Your task to perform on an android device: open app "Google Sheets" (install if not already installed) Image 0: 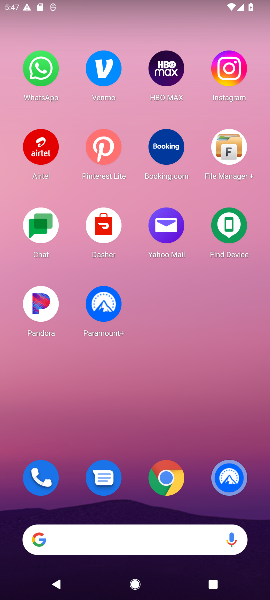
Step 0: drag from (124, 403) to (185, 0)
Your task to perform on an android device: open app "Google Sheets" (install if not already installed) Image 1: 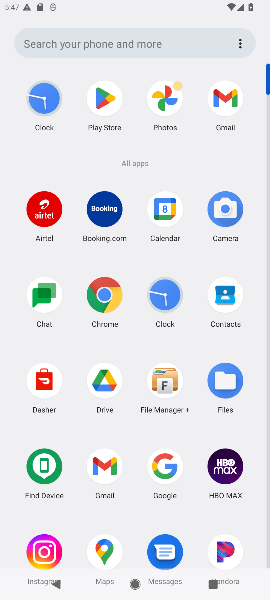
Step 1: click (97, 99)
Your task to perform on an android device: open app "Google Sheets" (install if not already installed) Image 2: 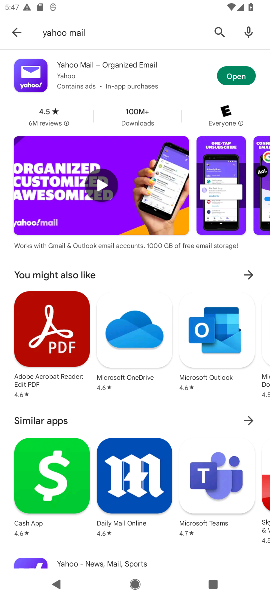
Step 2: click (183, 30)
Your task to perform on an android device: open app "Google Sheets" (install if not already installed) Image 3: 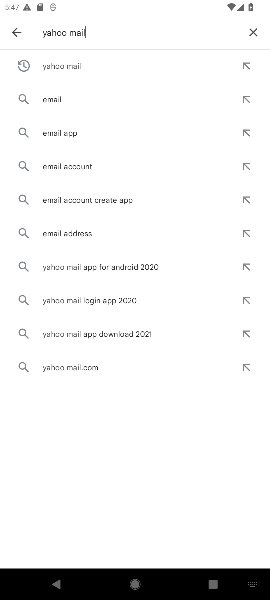
Step 3: click (252, 27)
Your task to perform on an android device: open app "Google Sheets" (install if not already installed) Image 4: 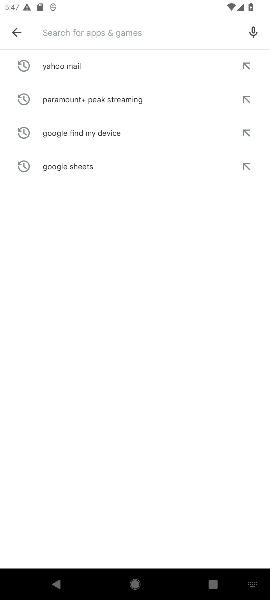
Step 4: type "google streets"
Your task to perform on an android device: open app "Google Sheets" (install if not already installed) Image 5: 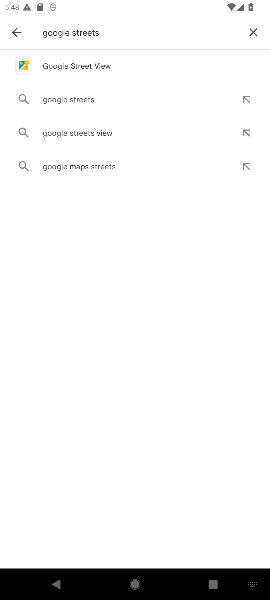
Step 5: click (107, 71)
Your task to perform on an android device: open app "Google Sheets" (install if not already installed) Image 6: 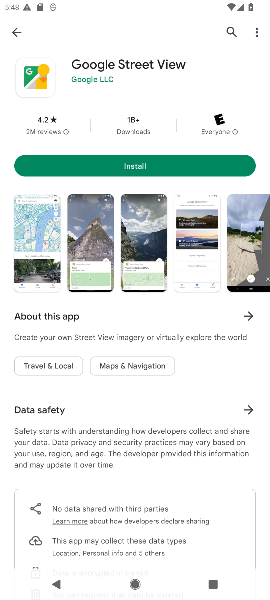
Step 6: click (108, 71)
Your task to perform on an android device: open app "Google Sheets" (install if not already installed) Image 7: 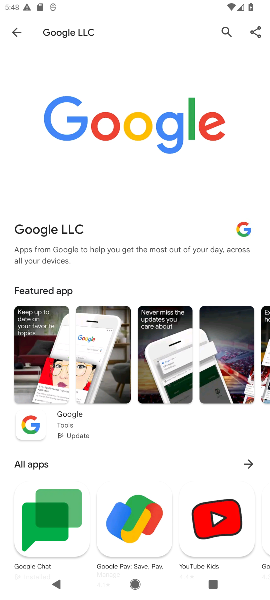
Step 7: drag from (115, 430) to (131, 128)
Your task to perform on an android device: open app "Google Sheets" (install if not already installed) Image 8: 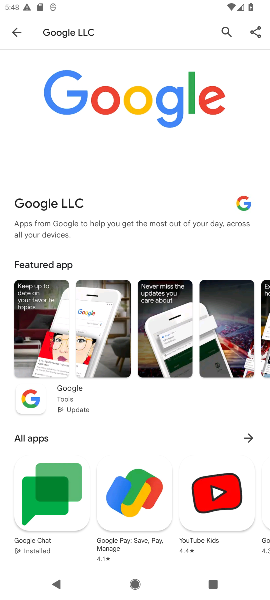
Step 8: click (54, 494)
Your task to perform on an android device: open app "Google Sheets" (install if not already installed) Image 9: 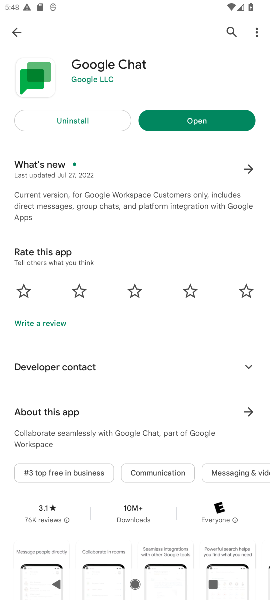
Step 9: click (228, 26)
Your task to perform on an android device: open app "Google Sheets" (install if not already installed) Image 10: 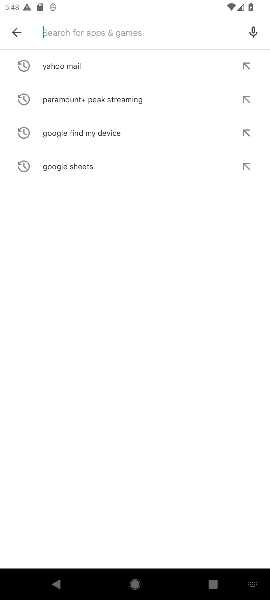
Step 10: click (78, 165)
Your task to perform on an android device: open app "Google Sheets" (install if not already installed) Image 11: 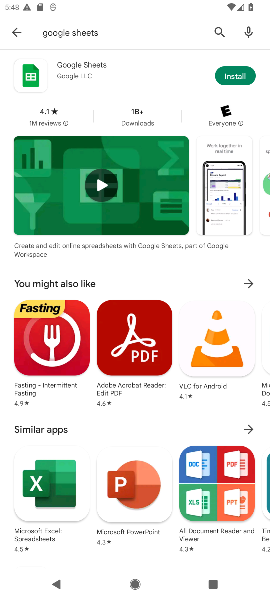
Step 11: click (232, 77)
Your task to perform on an android device: open app "Google Sheets" (install if not already installed) Image 12: 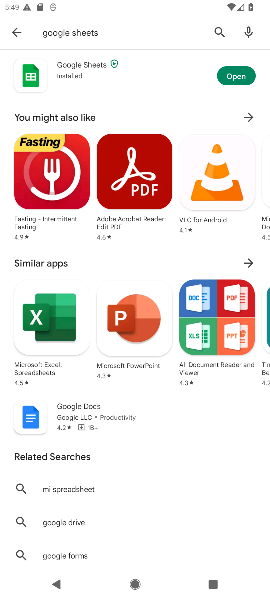
Step 12: click (238, 75)
Your task to perform on an android device: open app "Google Sheets" (install if not already installed) Image 13: 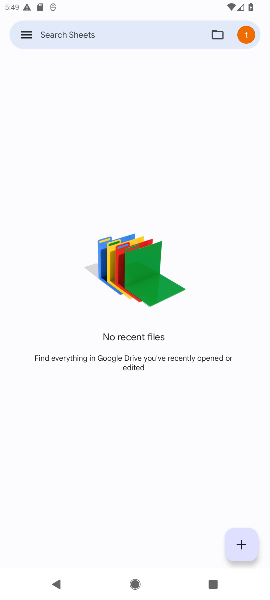
Step 13: task complete